Your task to perform on an android device: Go to location settings Image 0: 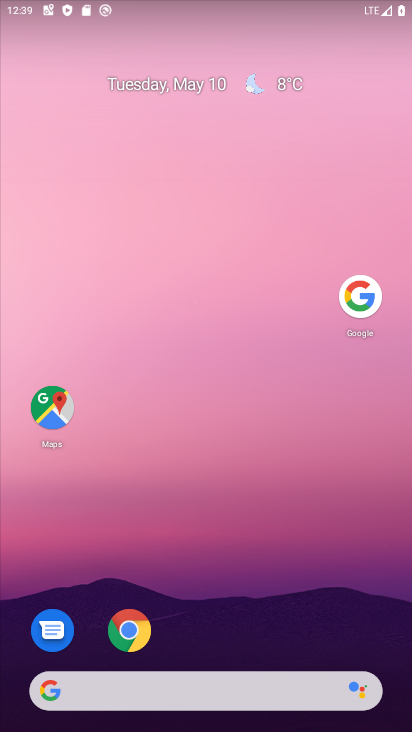
Step 0: drag from (189, 650) to (348, 140)
Your task to perform on an android device: Go to location settings Image 1: 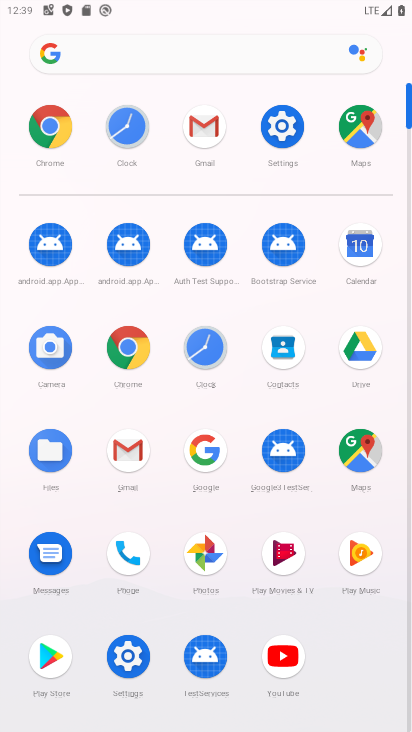
Step 1: click (283, 134)
Your task to perform on an android device: Go to location settings Image 2: 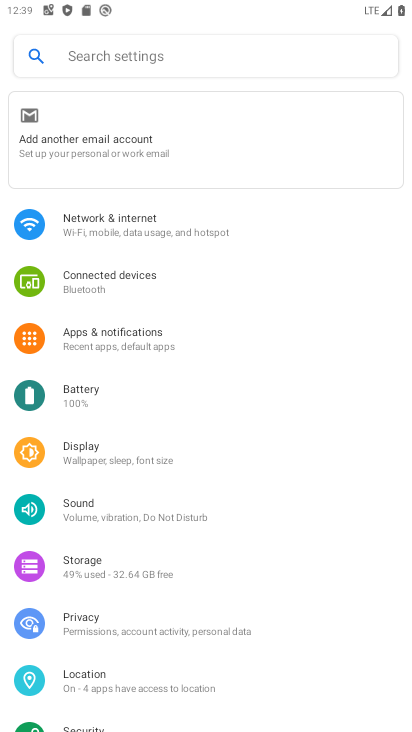
Step 2: click (96, 676)
Your task to perform on an android device: Go to location settings Image 3: 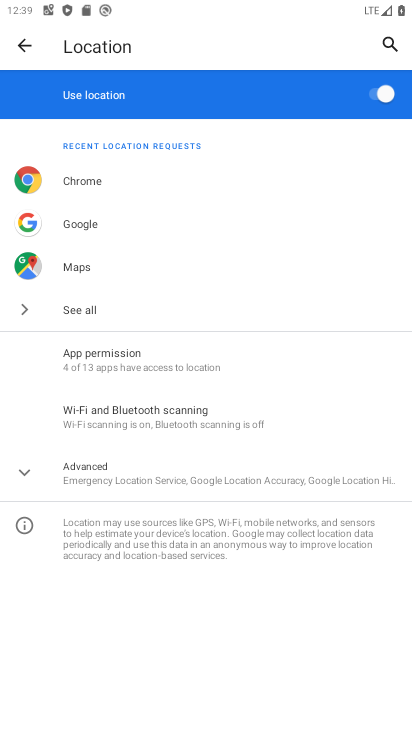
Step 3: task complete